Your task to perform on an android device: Go to display settings Image 0: 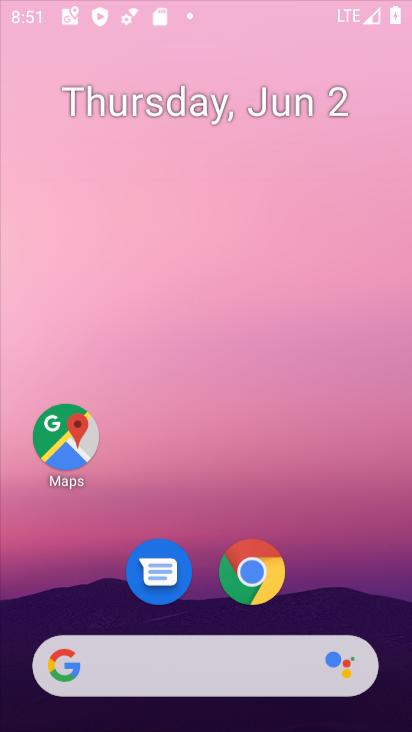
Step 0: press home button
Your task to perform on an android device: Go to display settings Image 1: 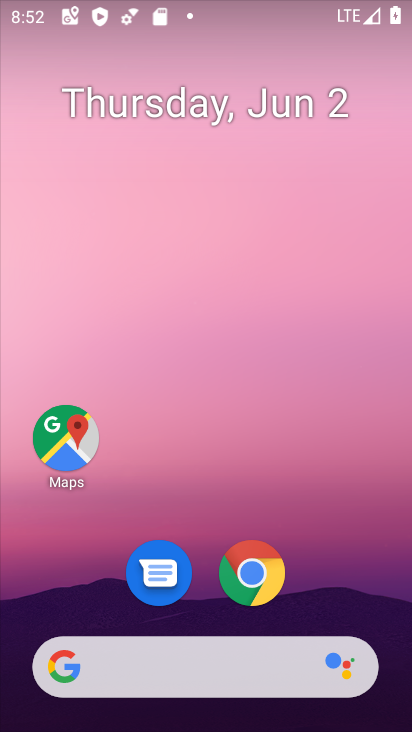
Step 1: press home button
Your task to perform on an android device: Go to display settings Image 2: 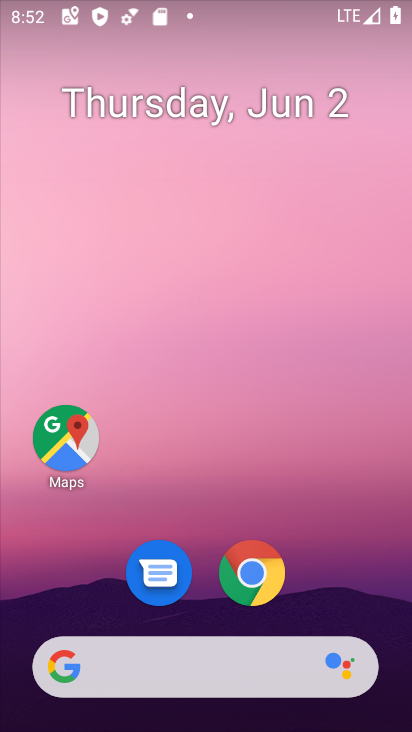
Step 2: drag from (356, 605) to (301, 4)
Your task to perform on an android device: Go to display settings Image 3: 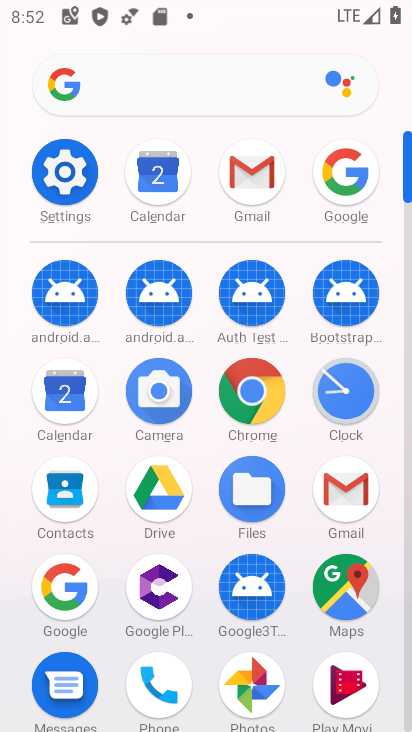
Step 3: click (62, 170)
Your task to perform on an android device: Go to display settings Image 4: 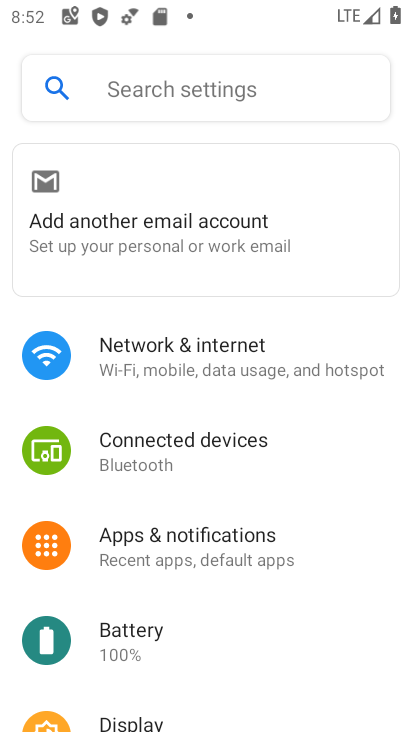
Step 4: drag from (156, 663) to (142, 533)
Your task to perform on an android device: Go to display settings Image 5: 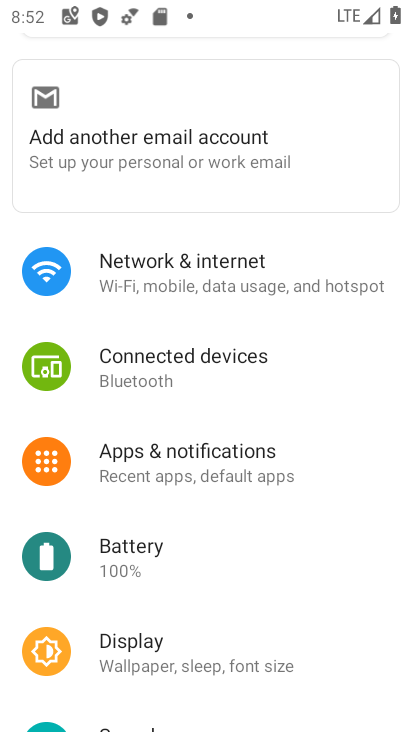
Step 5: click (164, 667)
Your task to perform on an android device: Go to display settings Image 6: 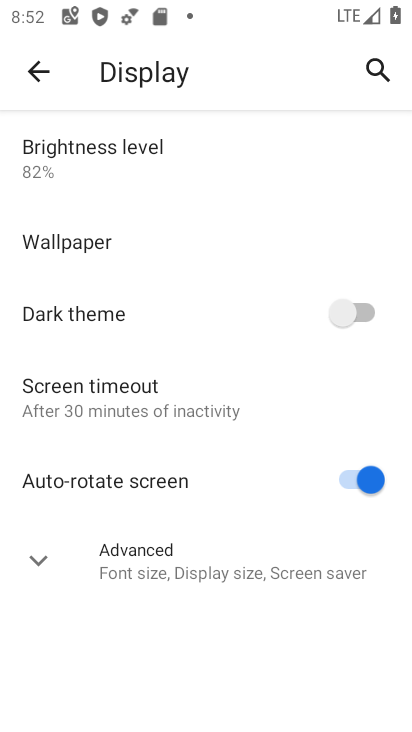
Step 6: task complete